Your task to perform on an android device: Open privacy settings Image 0: 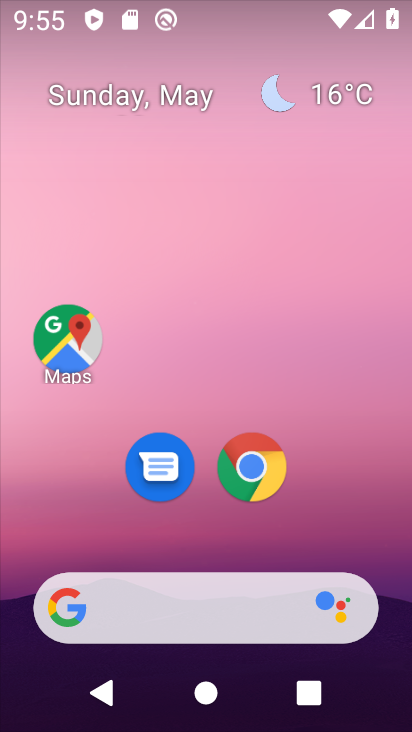
Step 0: drag from (383, 513) to (352, 123)
Your task to perform on an android device: Open privacy settings Image 1: 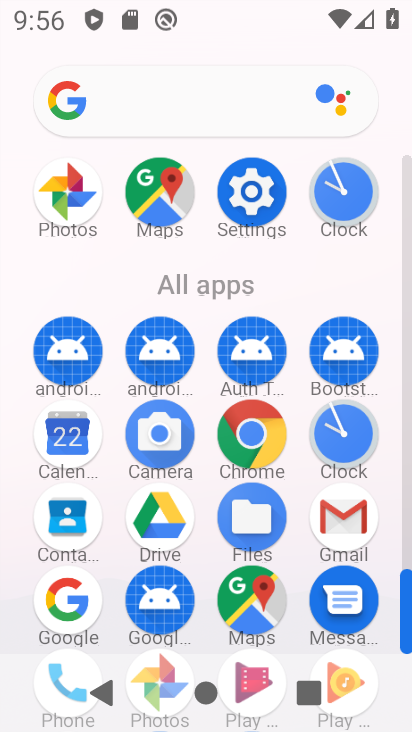
Step 1: click (236, 211)
Your task to perform on an android device: Open privacy settings Image 2: 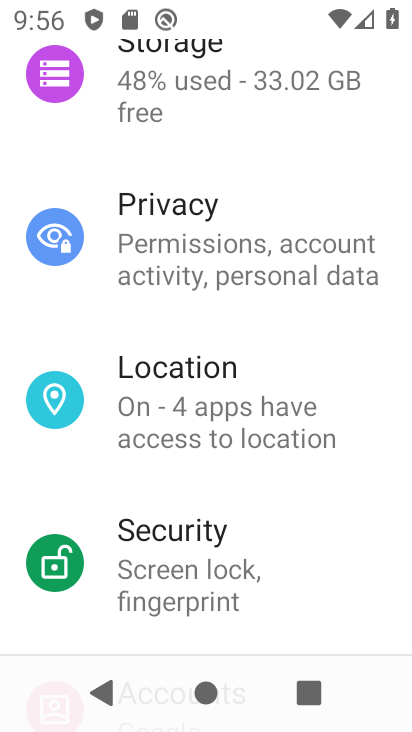
Step 2: click (224, 208)
Your task to perform on an android device: Open privacy settings Image 3: 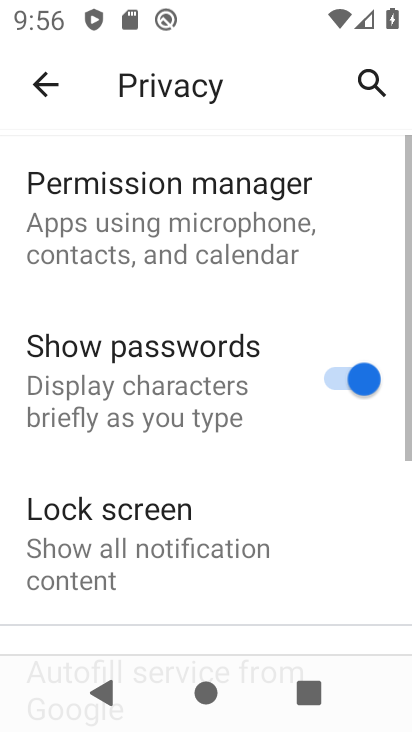
Step 3: task complete